Your task to perform on an android device: Go to display settings Image 0: 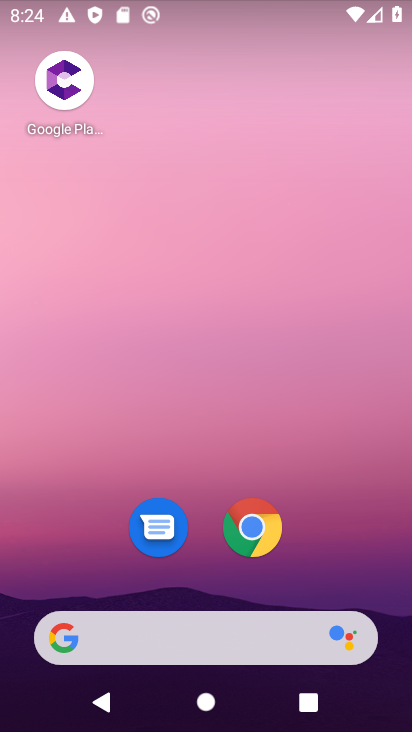
Step 0: drag from (80, 529) to (102, 0)
Your task to perform on an android device: Go to display settings Image 1: 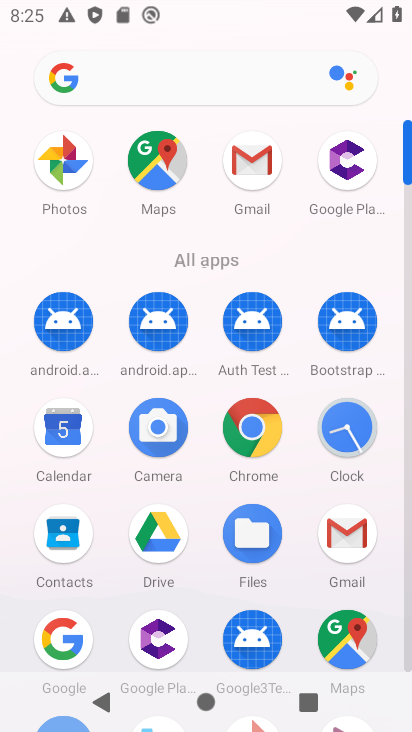
Step 1: drag from (372, 567) to (332, 97)
Your task to perform on an android device: Go to display settings Image 2: 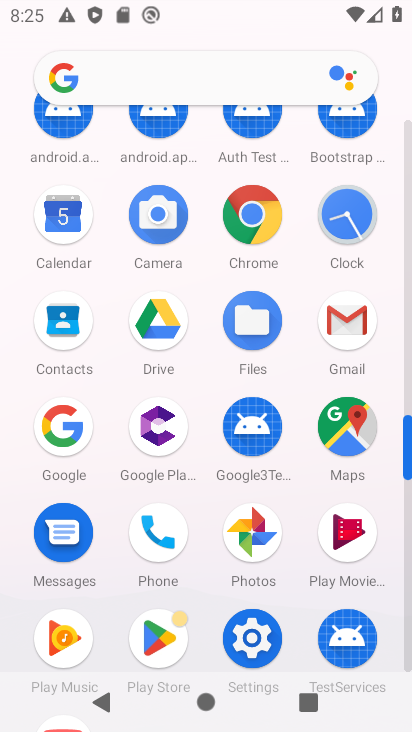
Step 2: click (267, 633)
Your task to perform on an android device: Go to display settings Image 3: 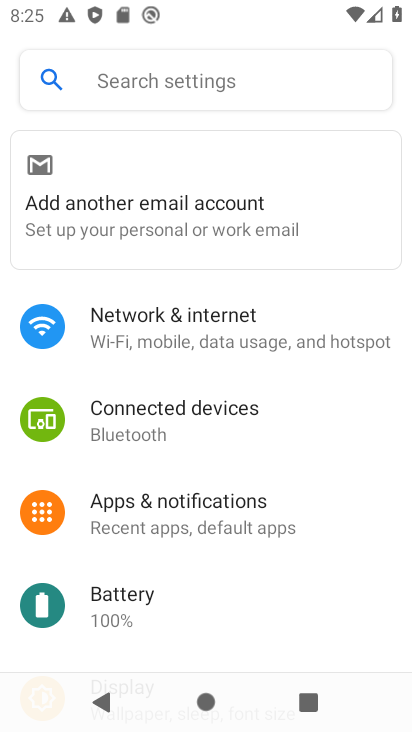
Step 3: drag from (172, 553) to (138, 136)
Your task to perform on an android device: Go to display settings Image 4: 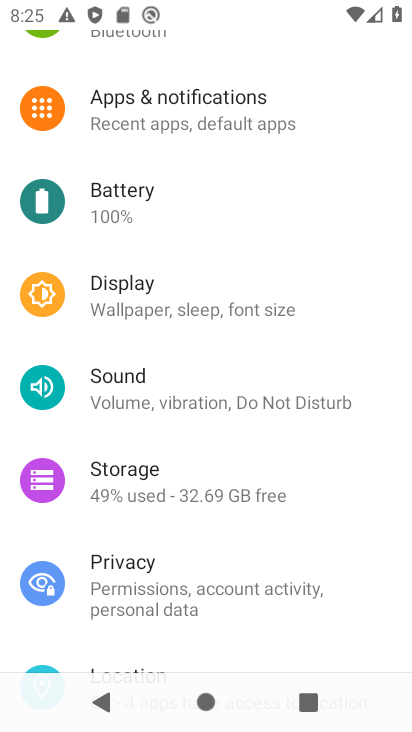
Step 4: click (143, 313)
Your task to perform on an android device: Go to display settings Image 5: 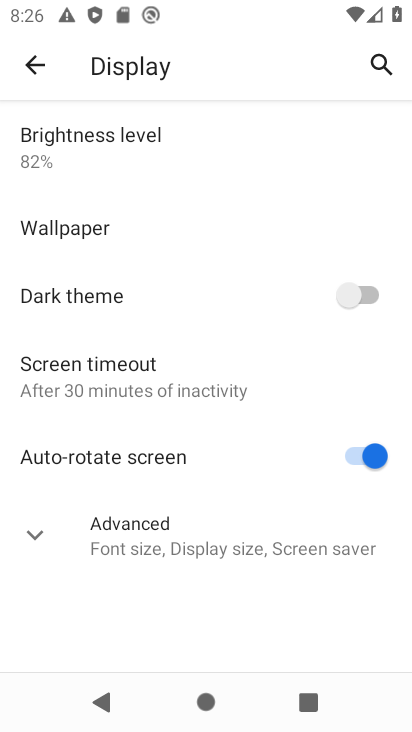
Step 5: task complete